Your task to perform on an android device: empty trash in google photos Image 0: 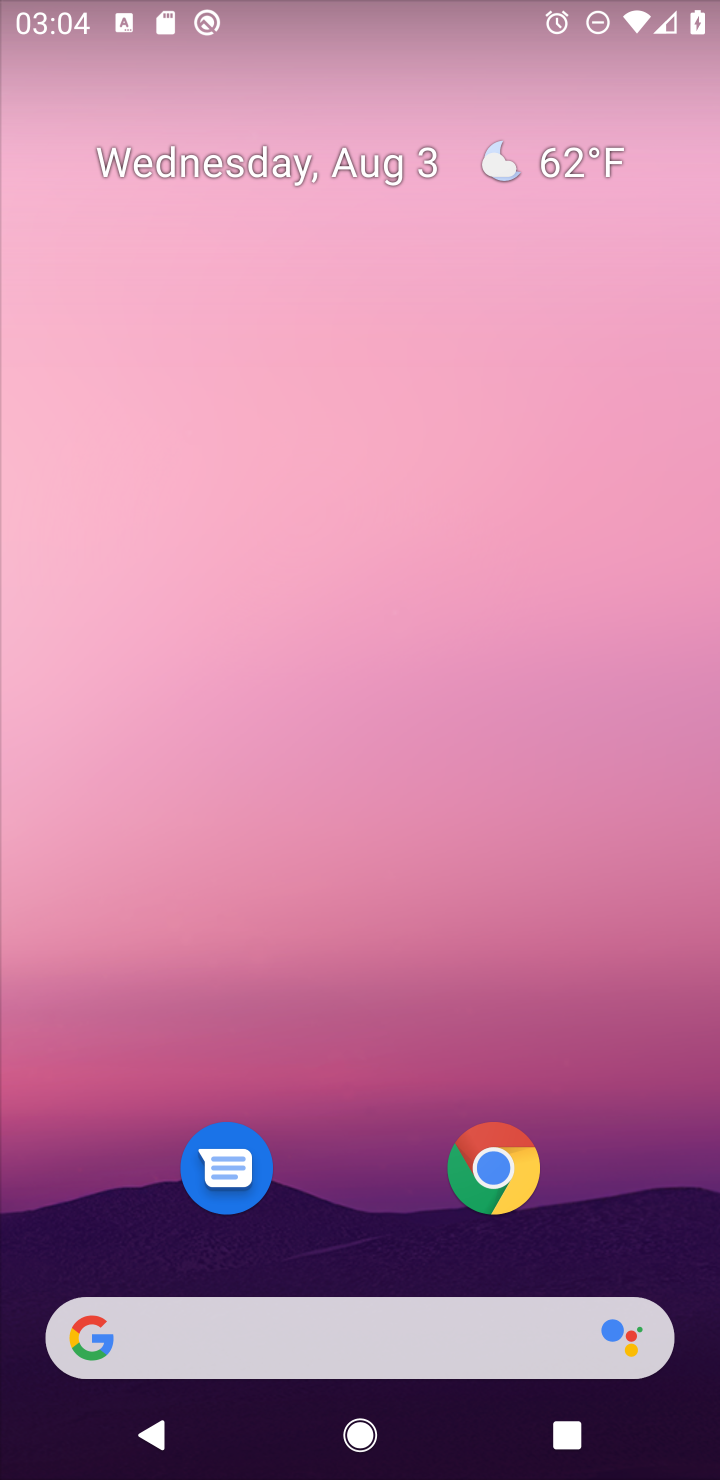
Step 0: drag from (678, 996) to (656, 252)
Your task to perform on an android device: empty trash in google photos Image 1: 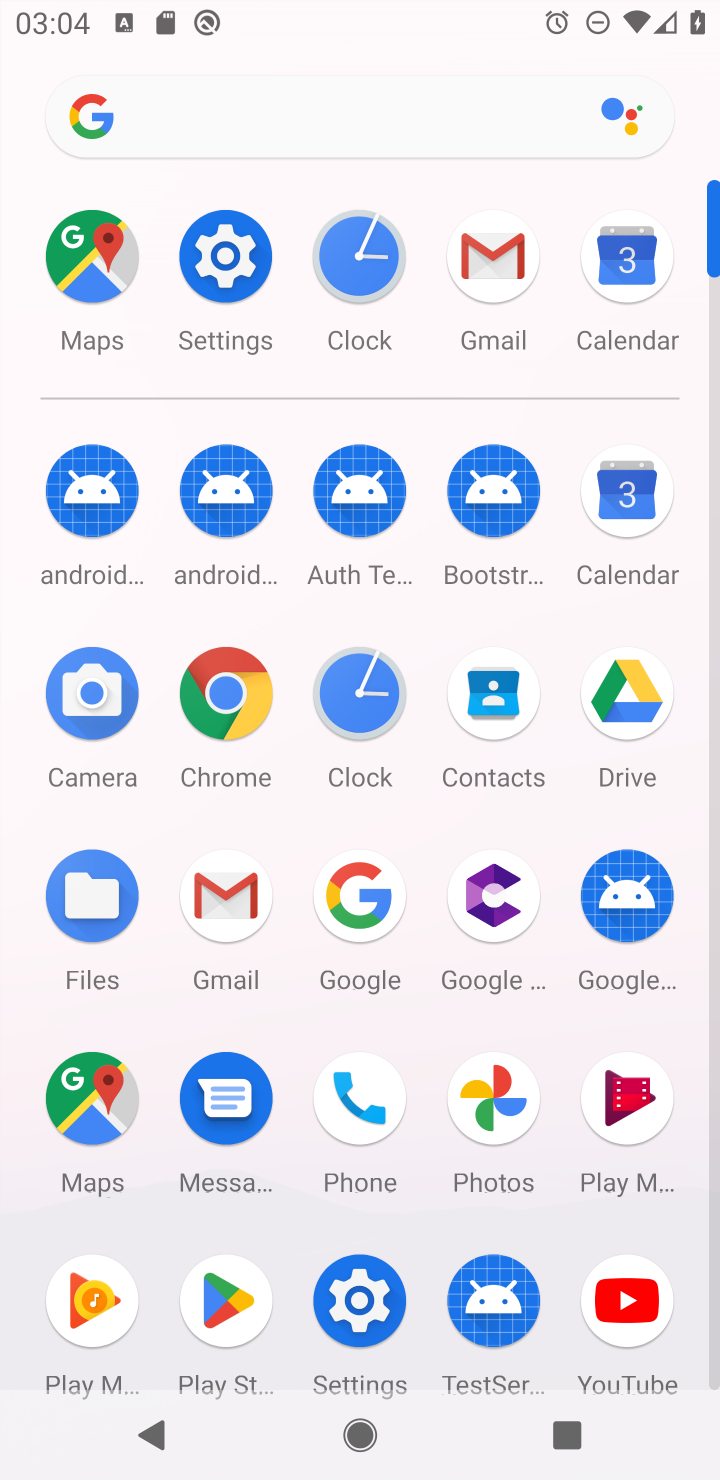
Step 1: click (492, 1095)
Your task to perform on an android device: empty trash in google photos Image 2: 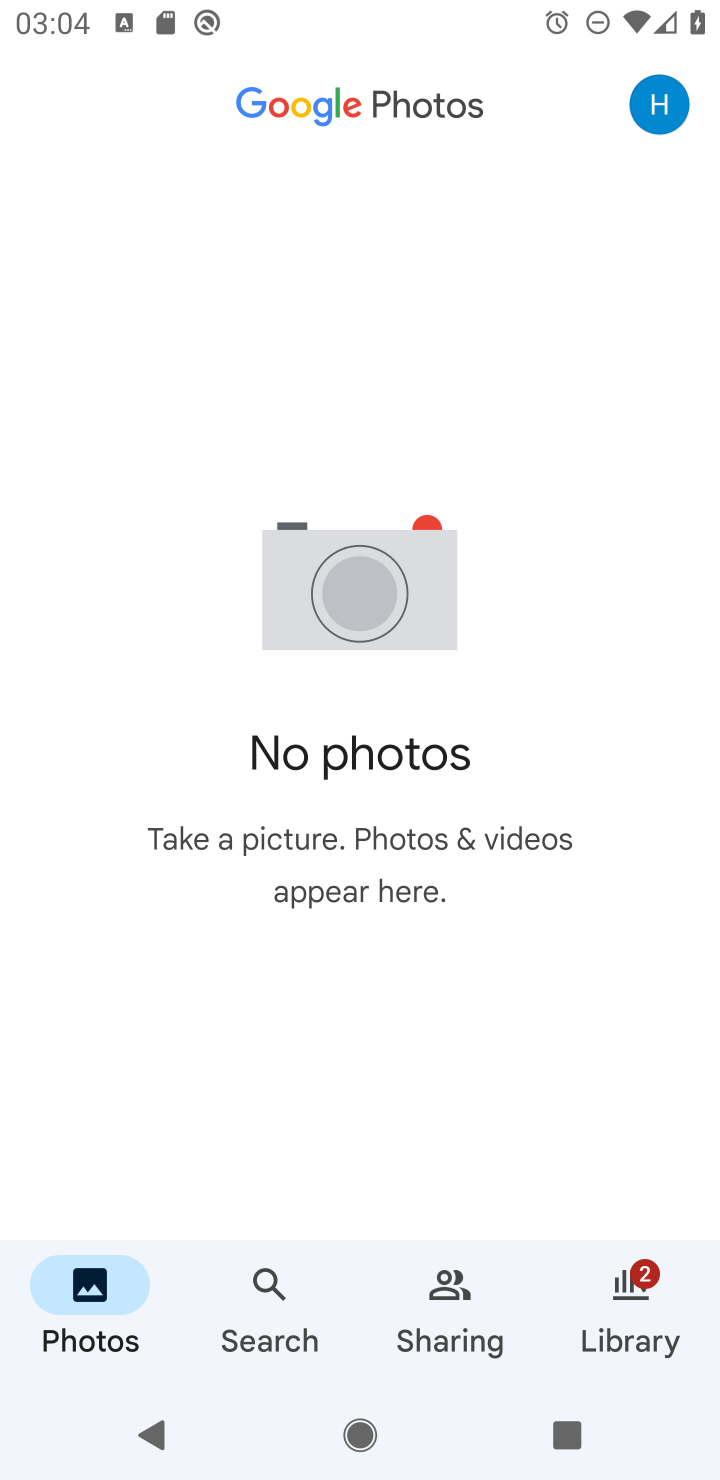
Step 2: click (622, 1286)
Your task to perform on an android device: empty trash in google photos Image 3: 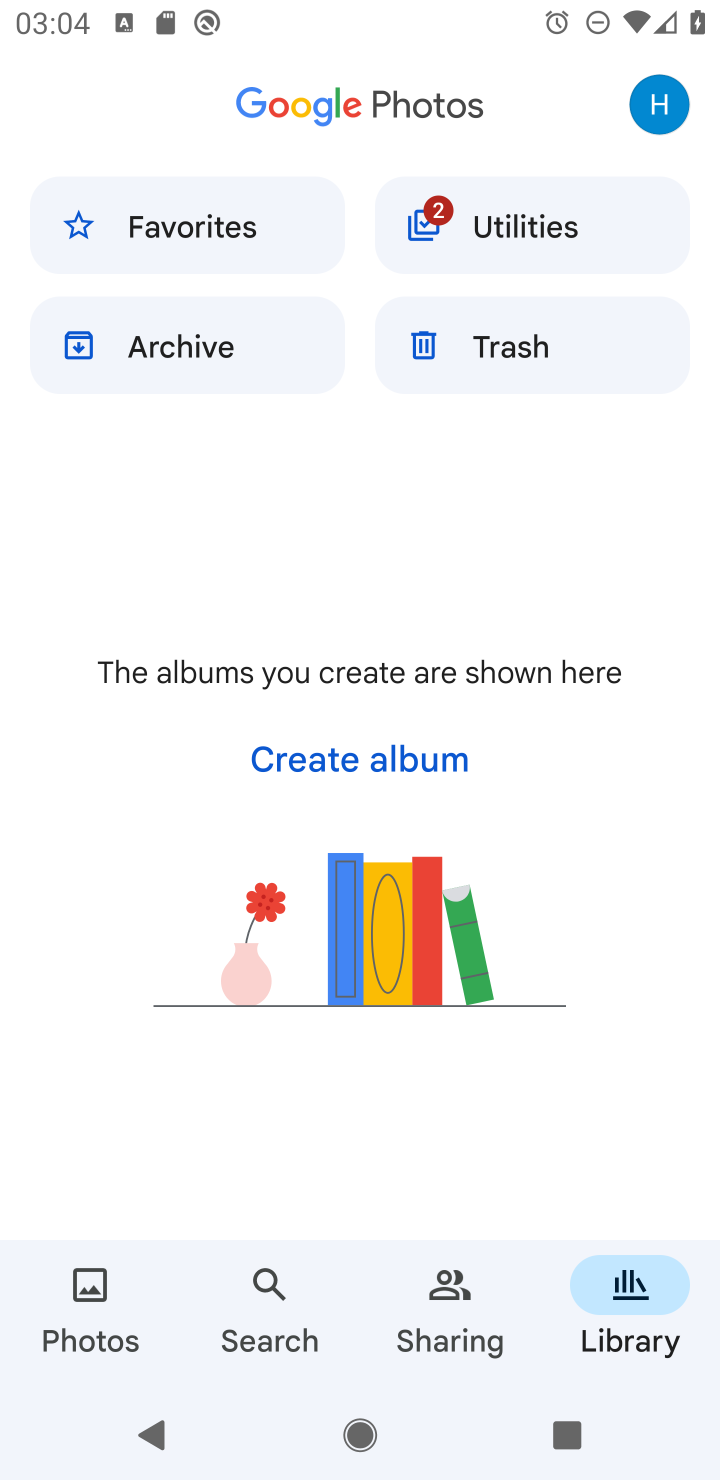
Step 3: click (484, 344)
Your task to perform on an android device: empty trash in google photos Image 4: 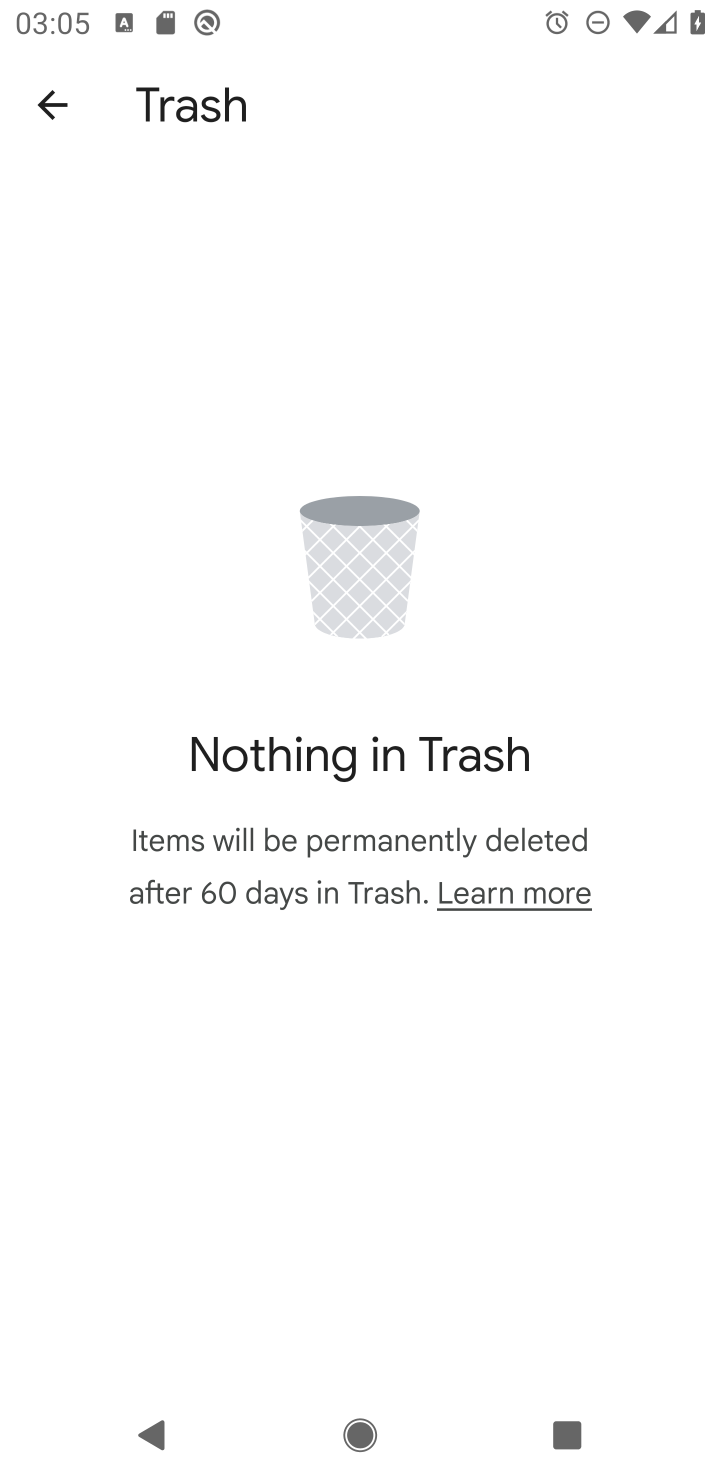
Step 4: task complete